Your task to perform on an android device: Search for Mexican restaurants on Maps Image 0: 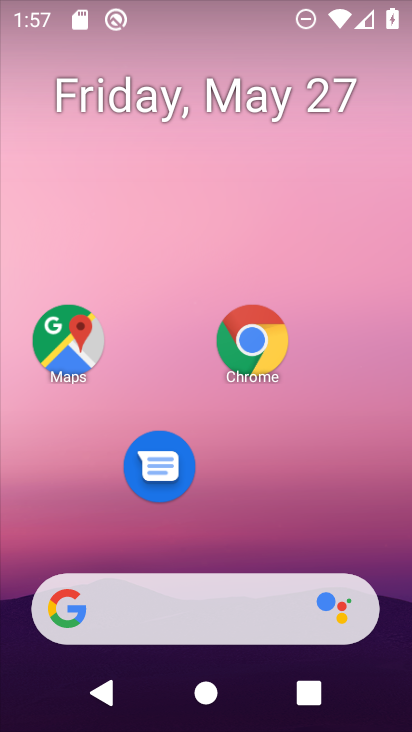
Step 0: click (50, 351)
Your task to perform on an android device: Search for Mexican restaurants on Maps Image 1: 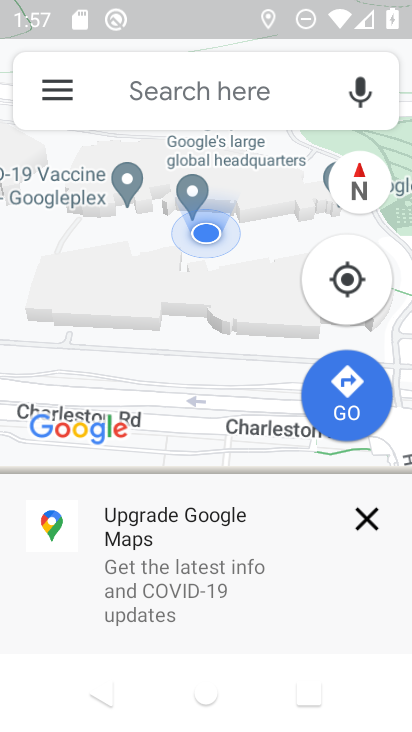
Step 1: click (265, 108)
Your task to perform on an android device: Search for Mexican restaurants on Maps Image 2: 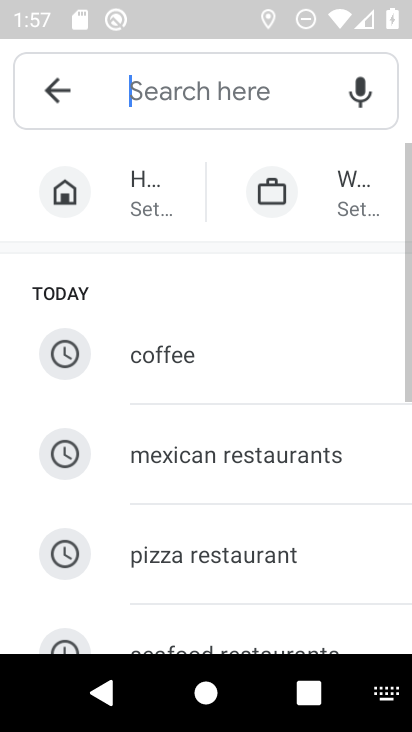
Step 2: click (176, 453)
Your task to perform on an android device: Search for Mexican restaurants on Maps Image 3: 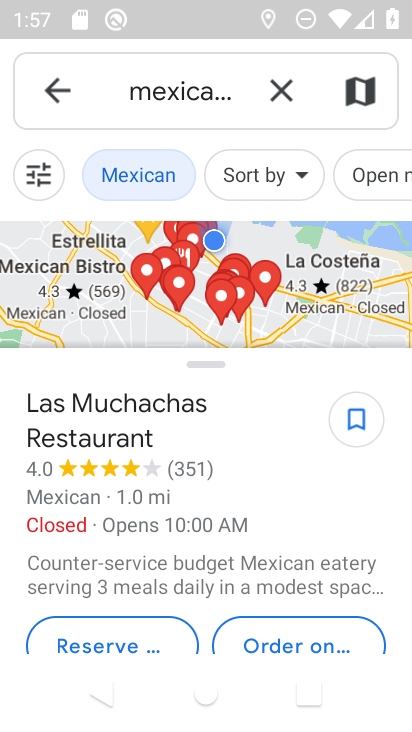
Step 3: task complete